Your task to perform on an android device: turn on translation in the chrome app Image 0: 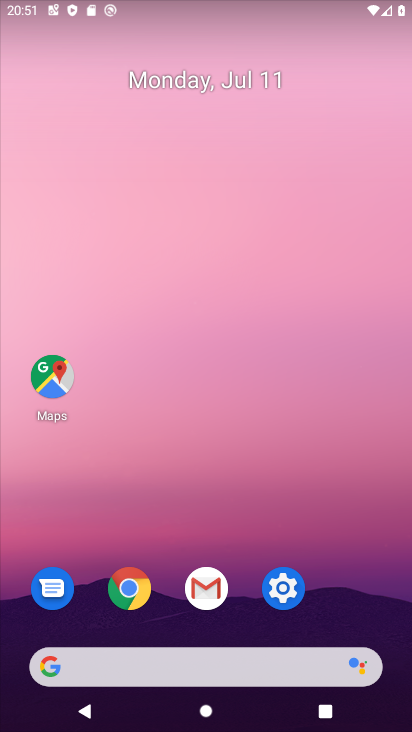
Step 0: click (124, 577)
Your task to perform on an android device: turn on translation in the chrome app Image 1: 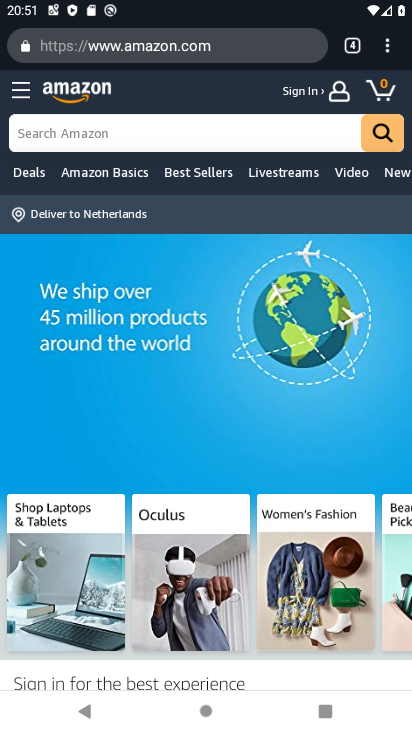
Step 1: click (384, 52)
Your task to perform on an android device: turn on translation in the chrome app Image 2: 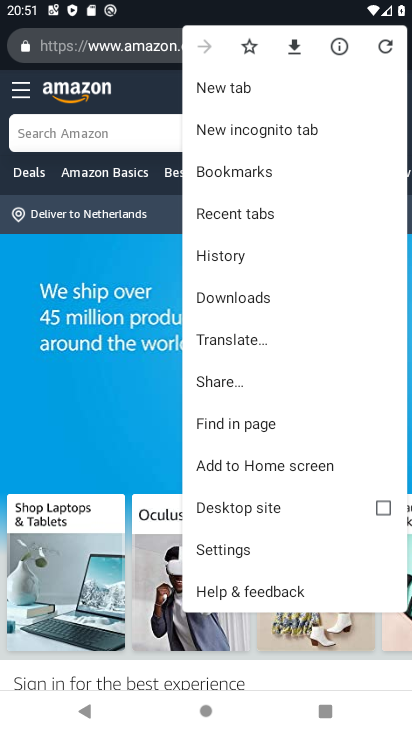
Step 2: click (224, 551)
Your task to perform on an android device: turn on translation in the chrome app Image 3: 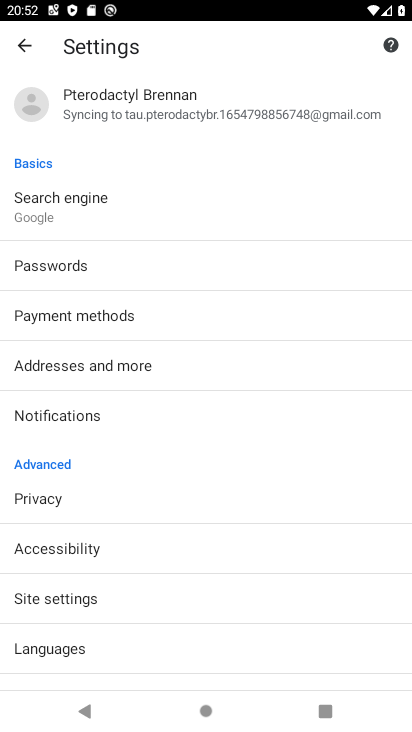
Step 3: click (62, 642)
Your task to perform on an android device: turn on translation in the chrome app Image 4: 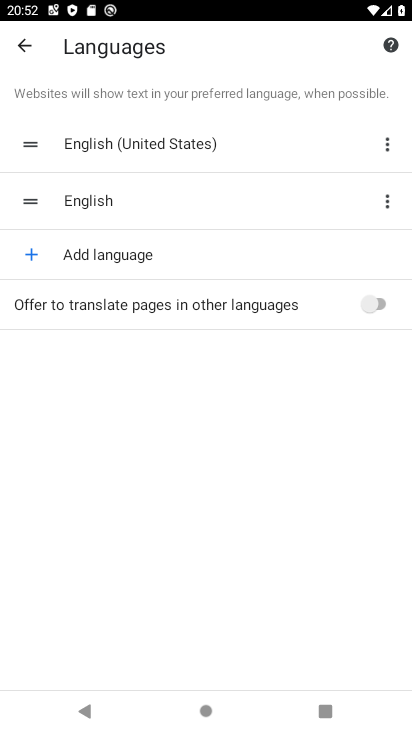
Step 4: click (375, 300)
Your task to perform on an android device: turn on translation in the chrome app Image 5: 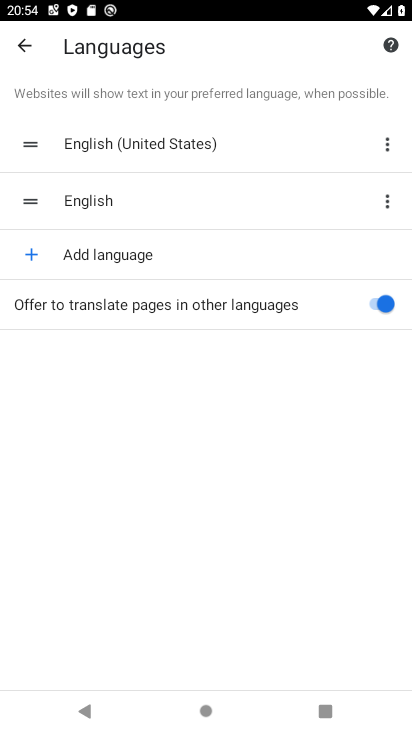
Step 5: task complete